Your task to perform on an android device: open app "Google Sheets" Image 0: 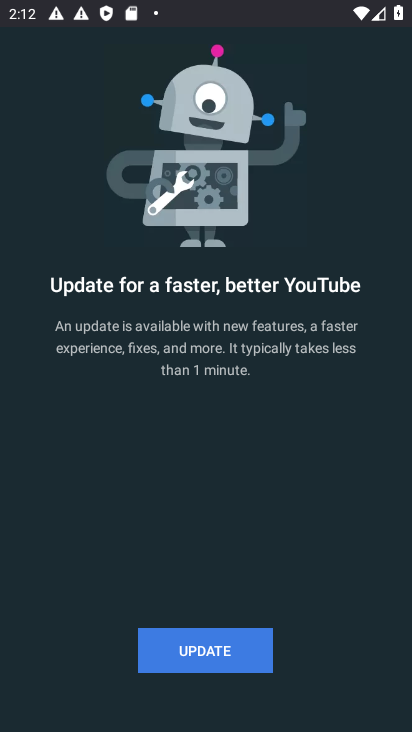
Step 0: click (399, 534)
Your task to perform on an android device: open app "Google Sheets" Image 1: 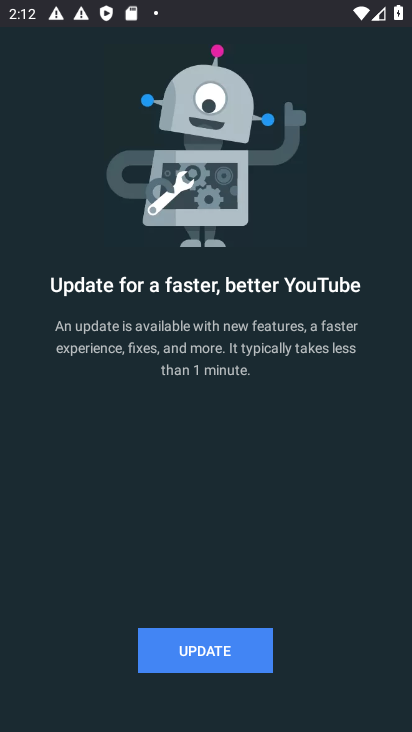
Step 1: press home button
Your task to perform on an android device: open app "Google Sheets" Image 2: 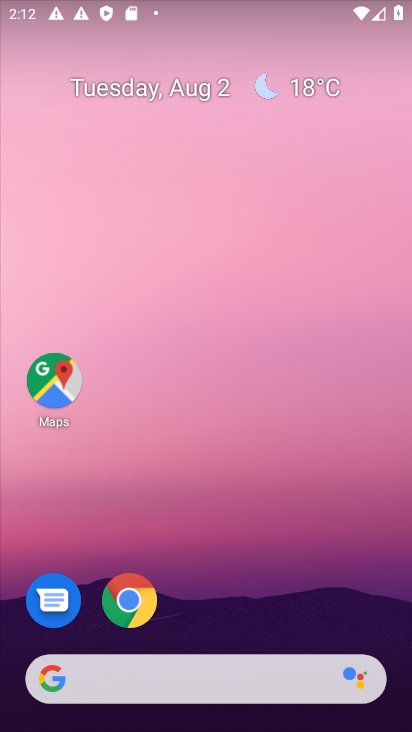
Step 2: drag from (89, 719) to (295, 205)
Your task to perform on an android device: open app "Google Sheets" Image 3: 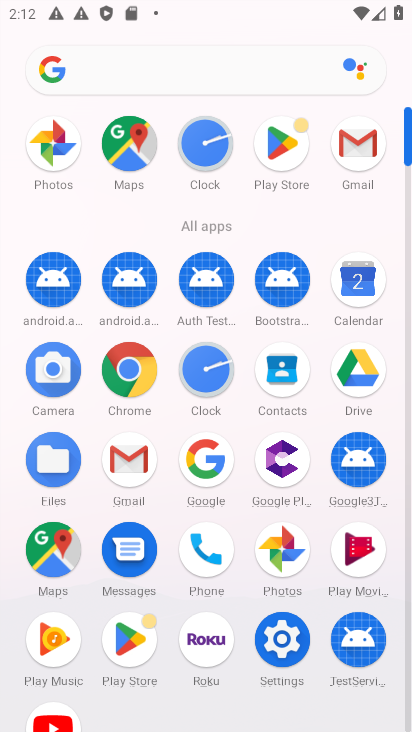
Step 3: click (286, 144)
Your task to perform on an android device: open app "Google Sheets" Image 4: 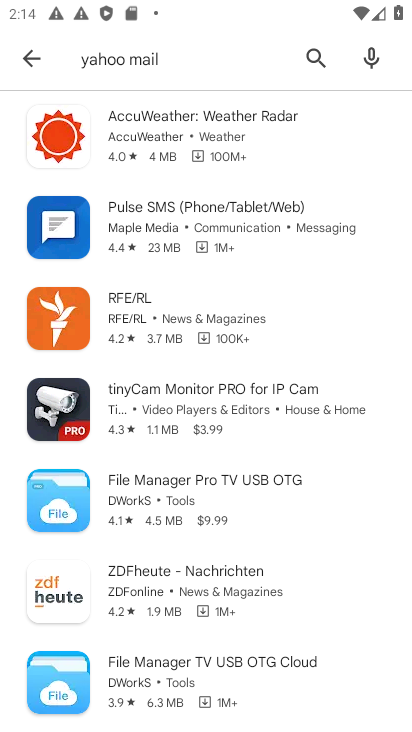
Step 4: click (304, 49)
Your task to perform on an android device: open app "Google Sheets" Image 5: 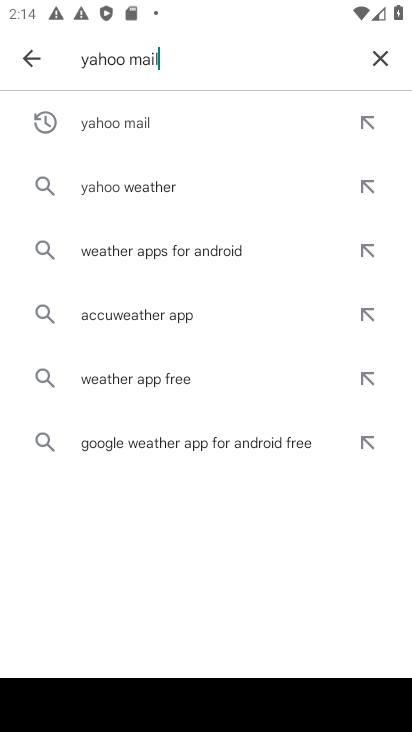
Step 5: click (376, 56)
Your task to perform on an android device: open app "Google Sheets" Image 6: 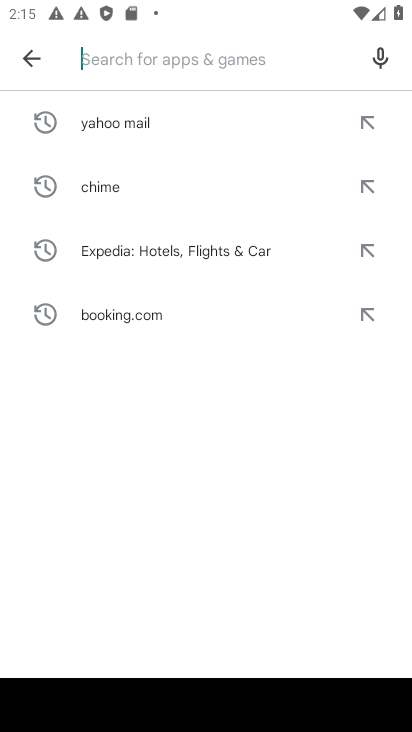
Step 6: type "google sheets "
Your task to perform on an android device: open app "Google Sheets" Image 7: 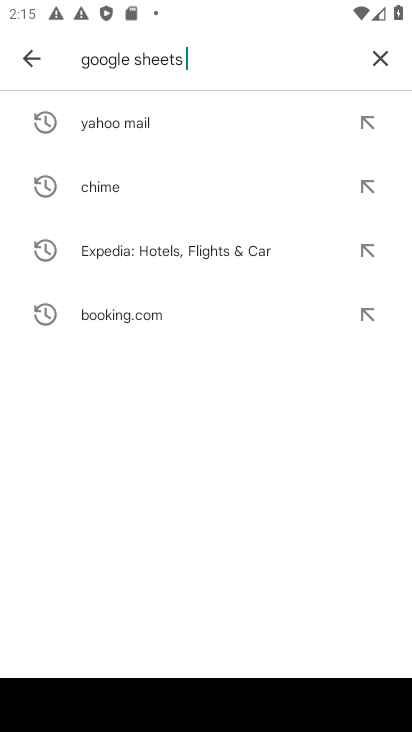
Step 7: type ""
Your task to perform on an android device: open app "Google Sheets" Image 8: 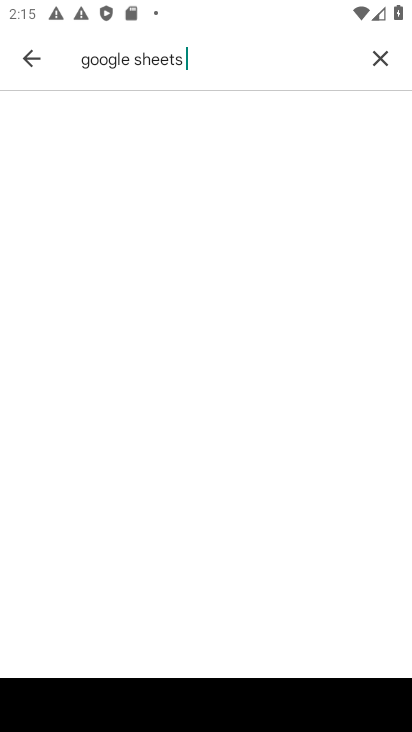
Step 8: press enter
Your task to perform on an android device: open app "Google Sheets" Image 9: 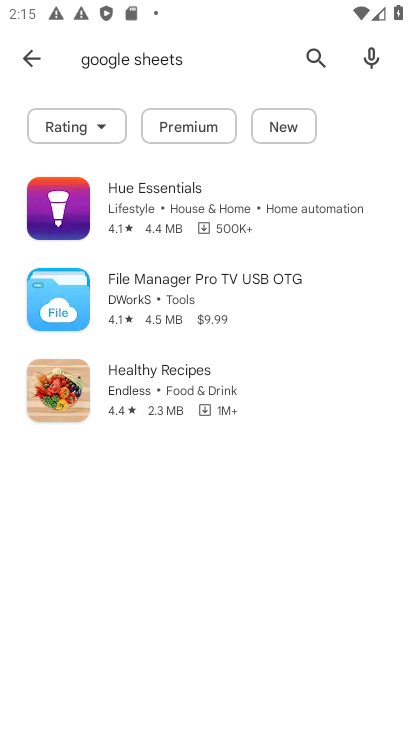
Step 9: task complete